Your task to perform on an android device: uninstall "PlayWell" Image 0: 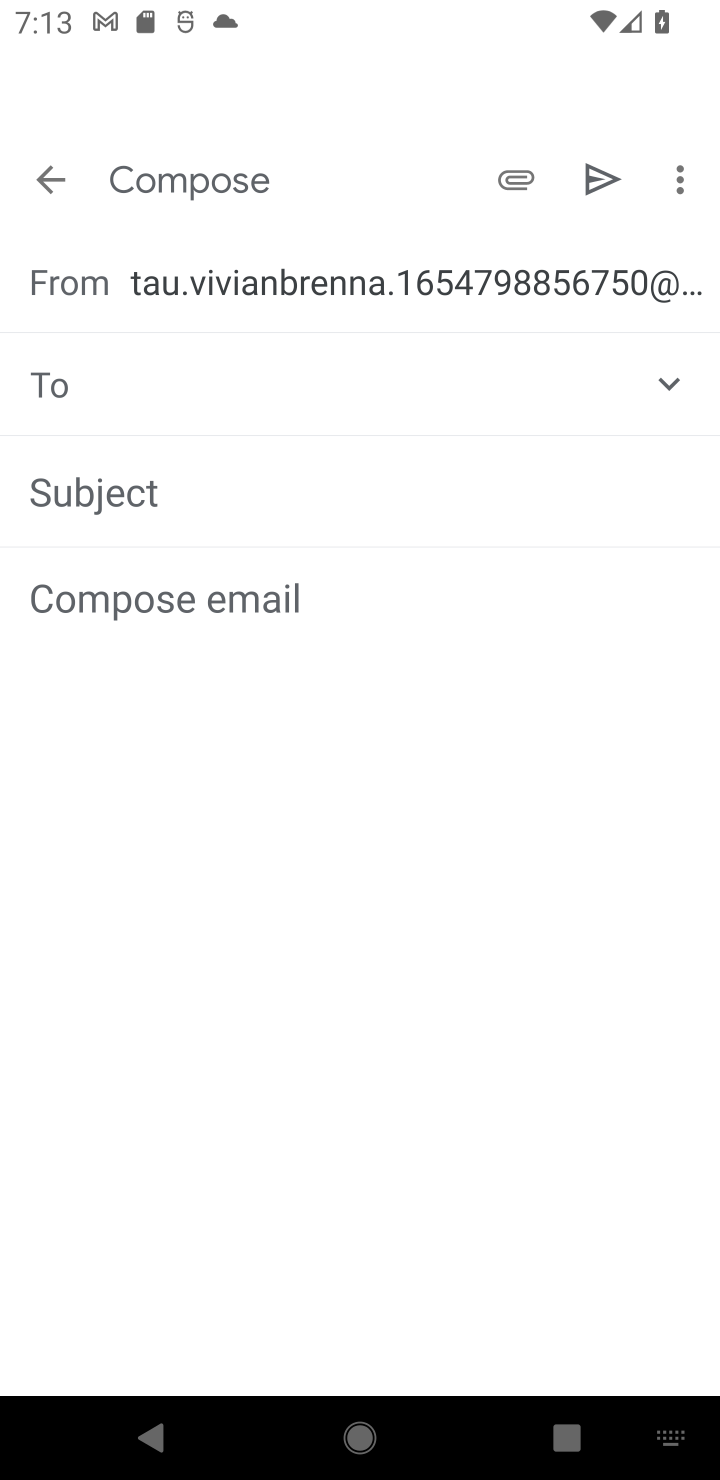
Step 0: press home button
Your task to perform on an android device: uninstall "PlayWell" Image 1: 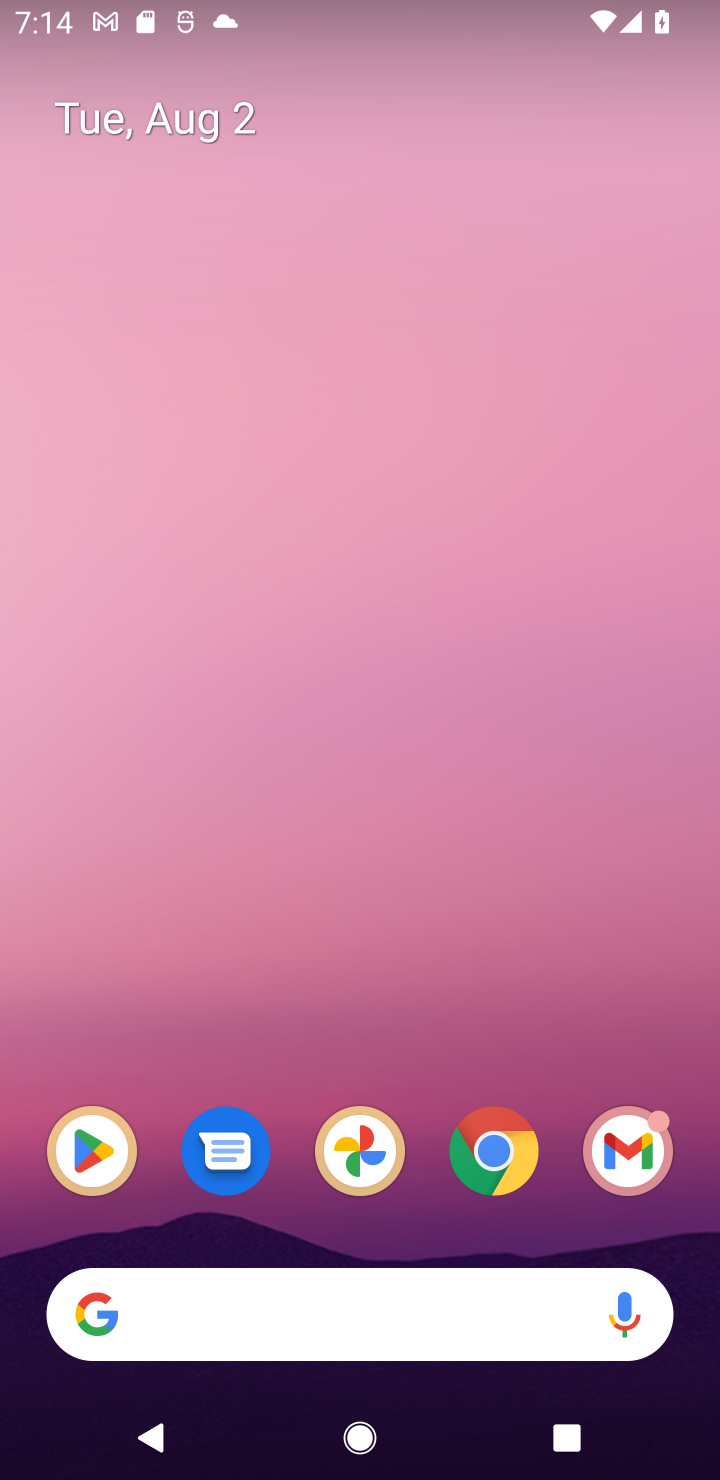
Step 1: click (91, 1145)
Your task to perform on an android device: uninstall "PlayWell" Image 2: 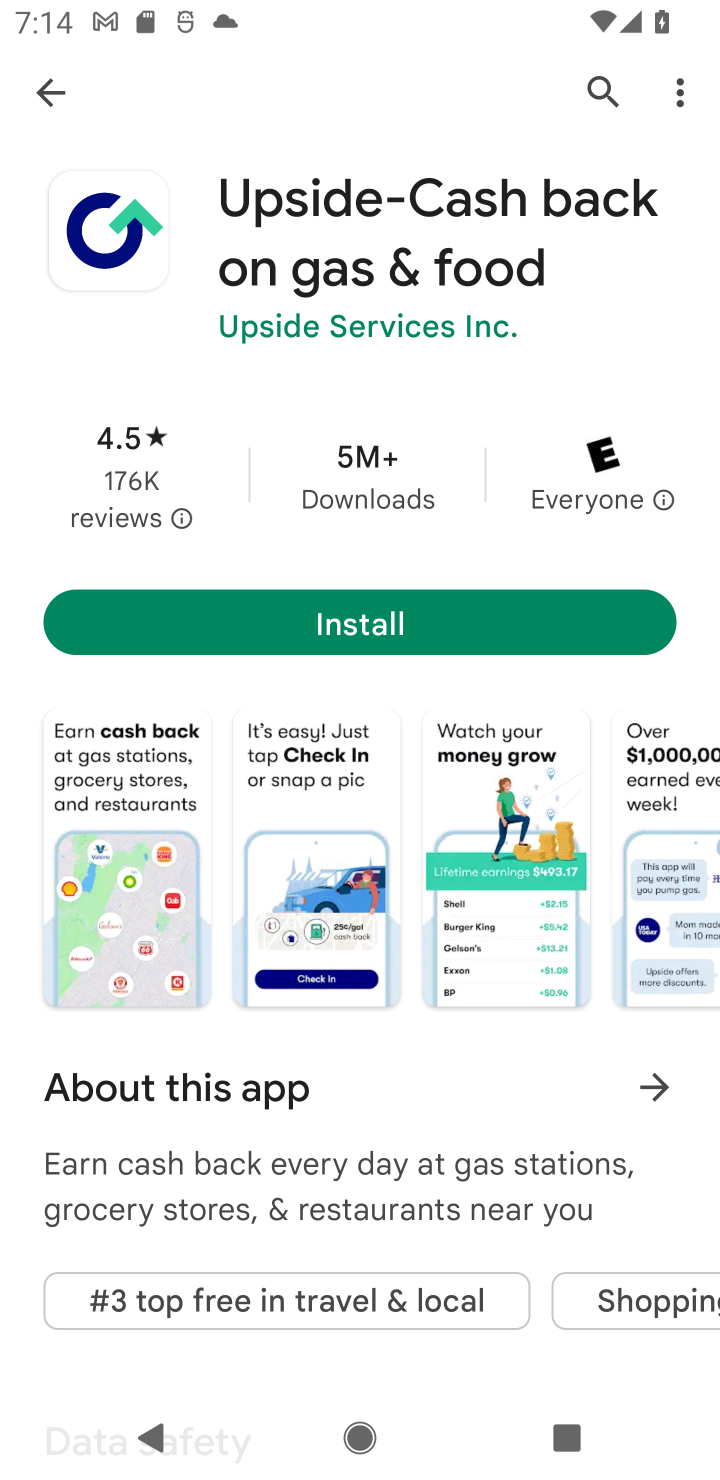
Step 2: task complete